Your task to perform on an android device: turn off notifications settings in the gmail app Image 0: 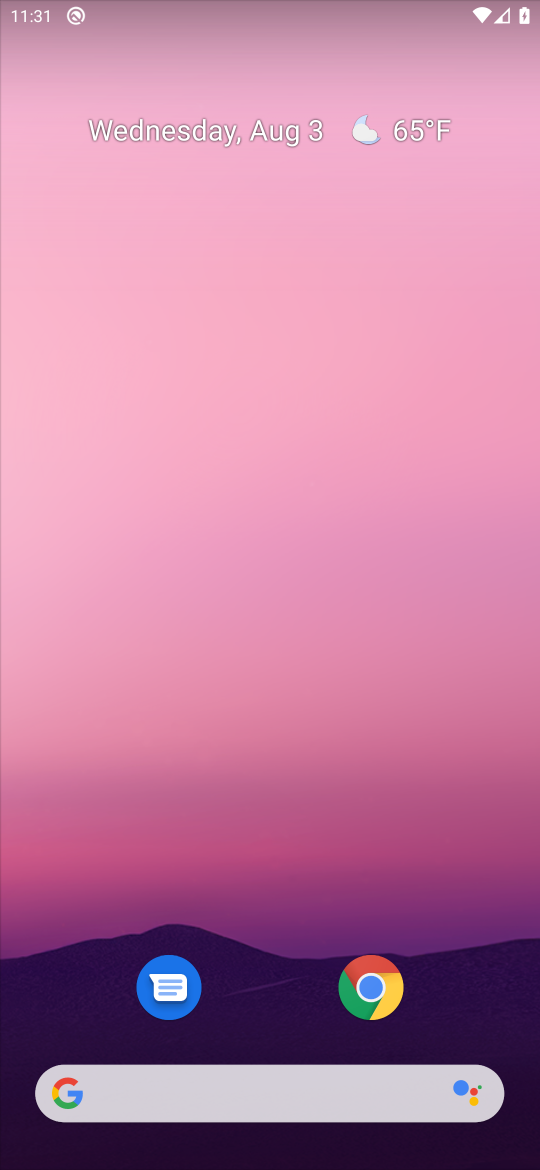
Step 0: drag from (306, 1029) to (220, 665)
Your task to perform on an android device: turn off notifications settings in the gmail app Image 1: 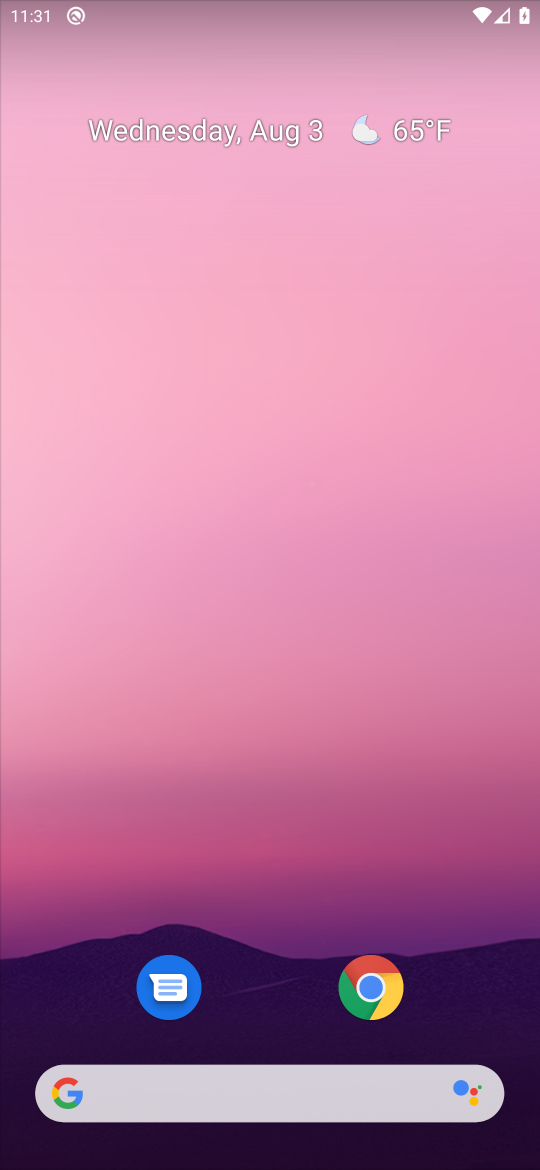
Step 1: drag from (188, 1070) to (175, 606)
Your task to perform on an android device: turn off notifications settings in the gmail app Image 2: 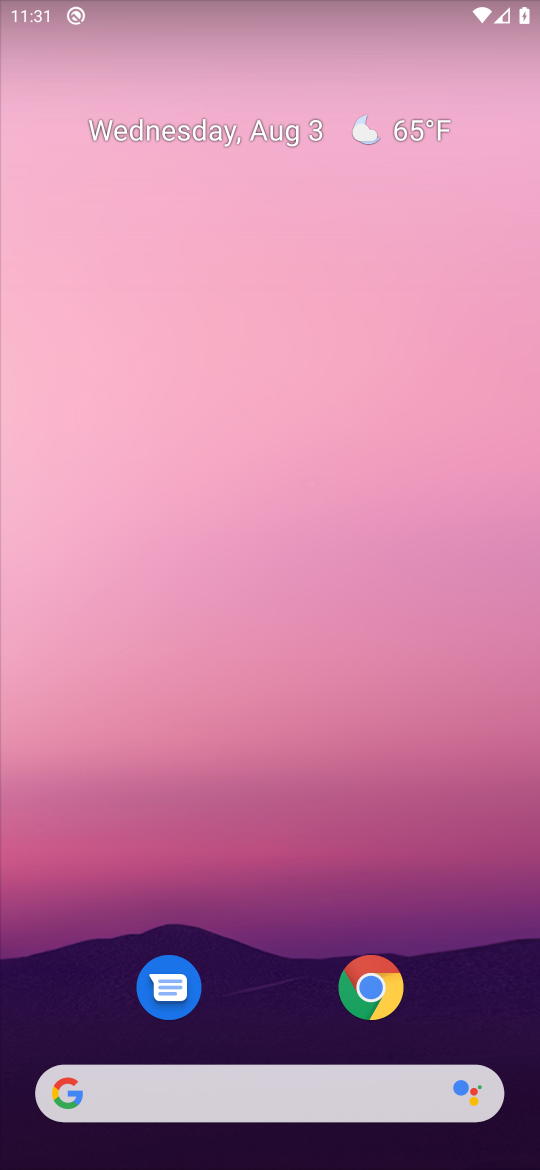
Step 2: drag from (231, 1102) to (231, 522)
Your task to perform on an android device: turn off notifications settings in the gmail app Image 3: 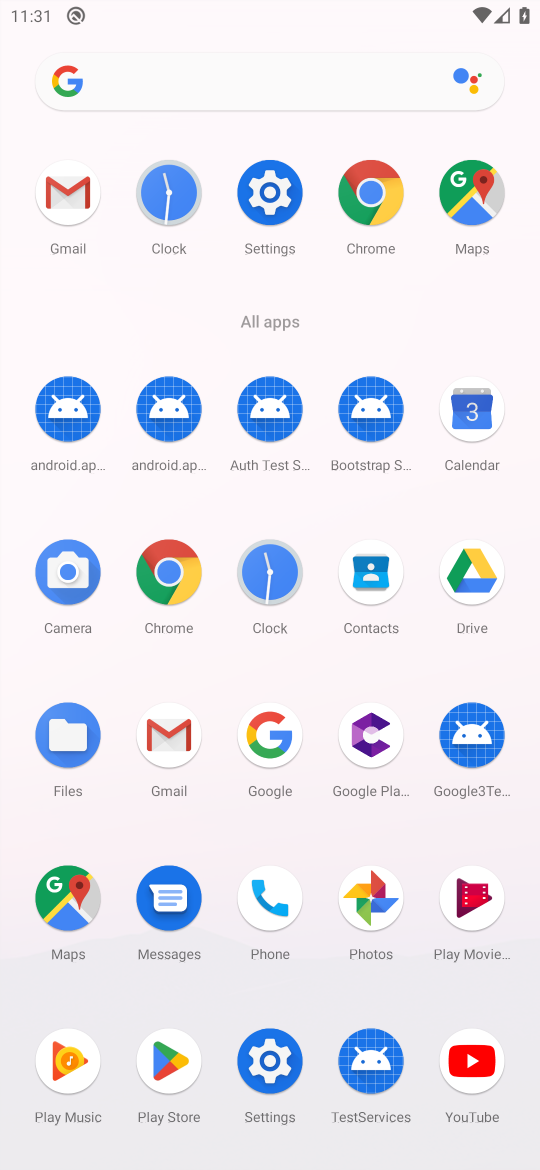
Step 3: click (159, 747)
Your task to perform on an android device: turn off notifications settings in the gmail app Image 4: 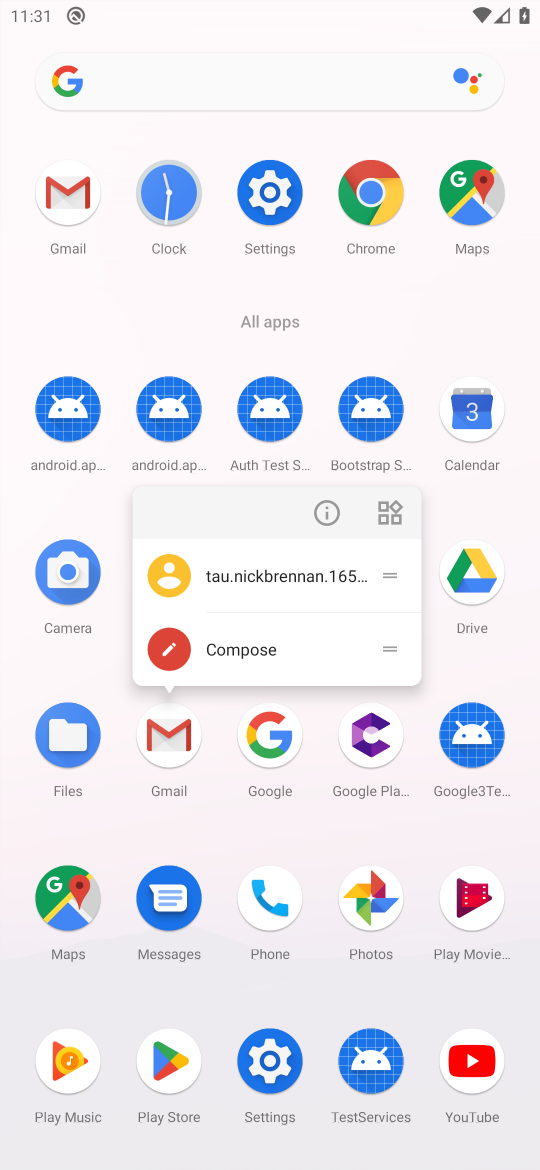
Step 4: click (159, 747)
Your task to perform on an android device: turn off notifications settings in the gmail app Image 5: 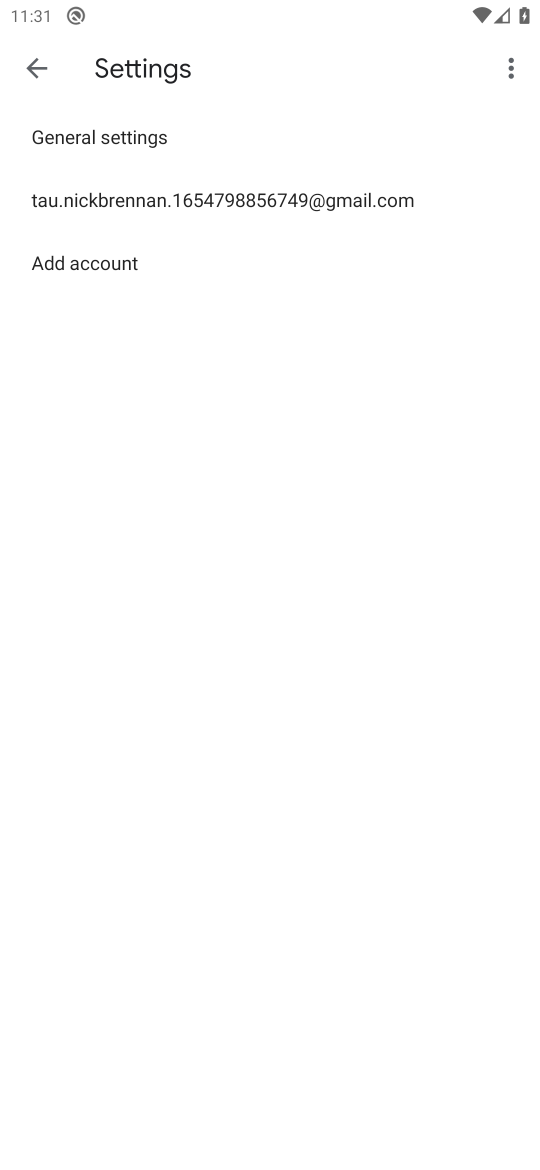
Step 5: click (108, 199)
Your task to perform on an android device: turn off notifications settings in the gmail app Image 6: 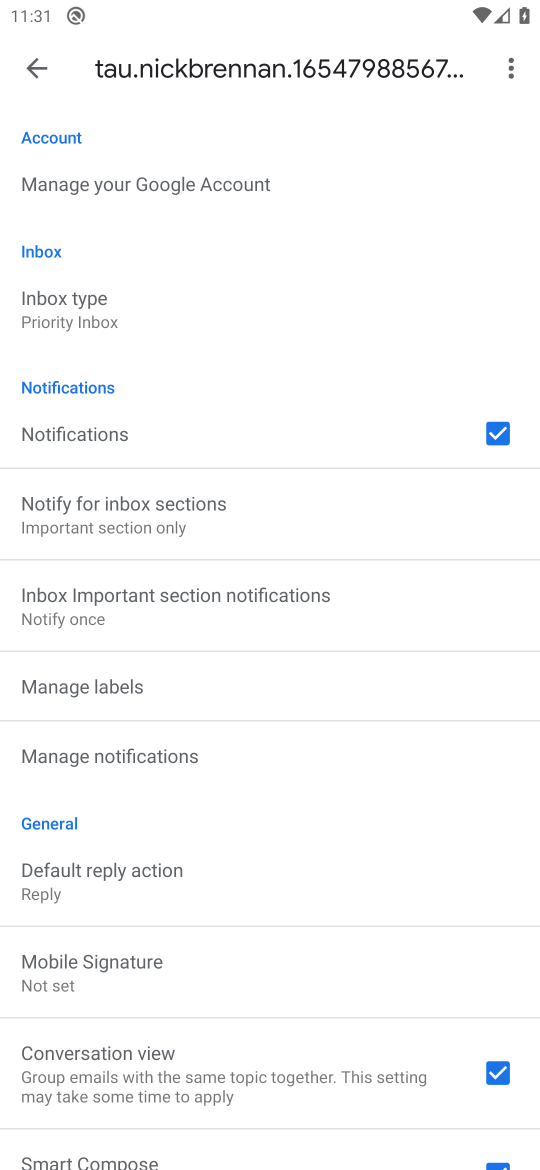
Step 6: click (108, 750)
Your task to perform on an android device: turn off notifications settings in the gmail app Image 7: 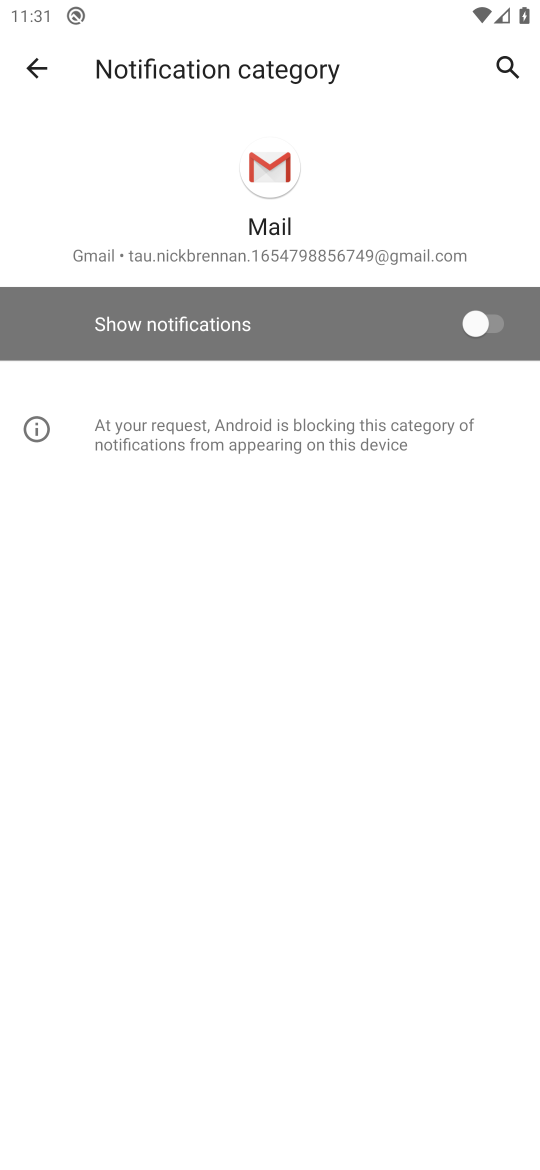
Step 7: task complete